Your task to perform on an android device: Search for hotels in Washington DC Image 0: 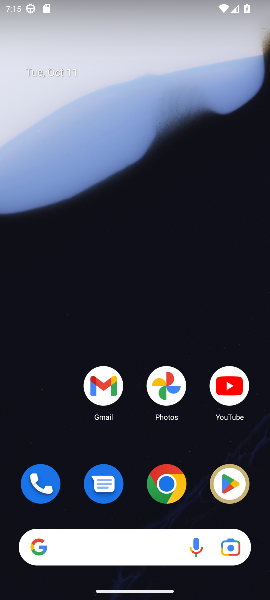
Step 0: click (165, 484)
Your task to perform on an android device: Search for hotels in Washington DC Image 1: 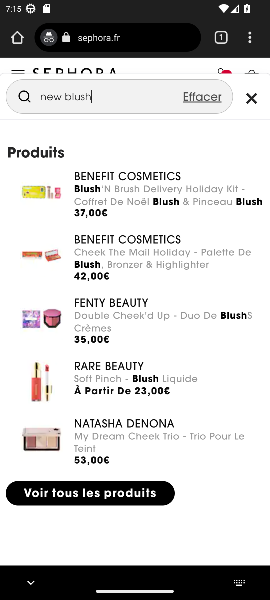
Step 1: click (139, 44)
Your task to perform on an android device: Search for hotels in Washington DC Image 2: 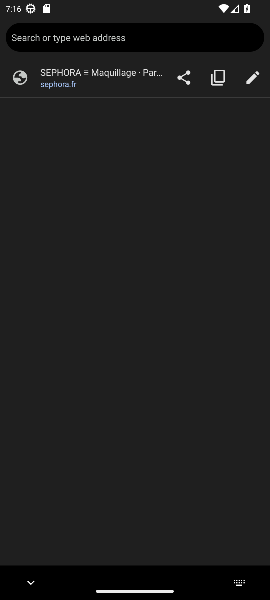
Step 2: type "hotels in Washington DC"
Your task to perform on an android device: Search for hotels in Washington DC Image 3: 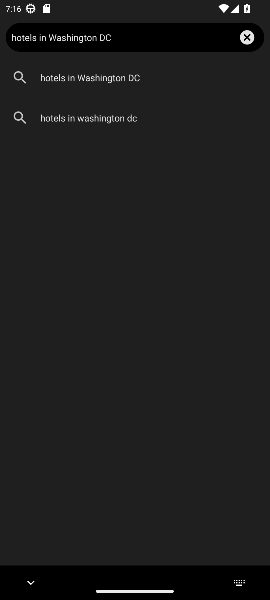
Step 3: click (130, 77)
Your task to perform on an android device: Search for hotels in Washington DC Image 4: 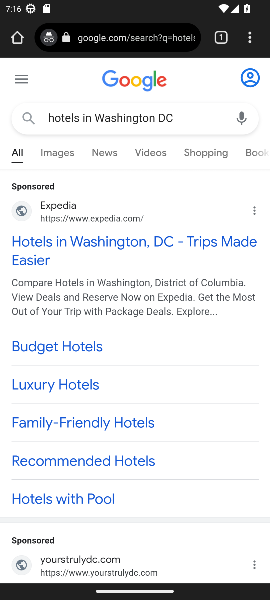
Step 4: drag from (103, 446) to (181, 279)
Your task to perform on an android device: Search for hotels in Washington DC Image 5: 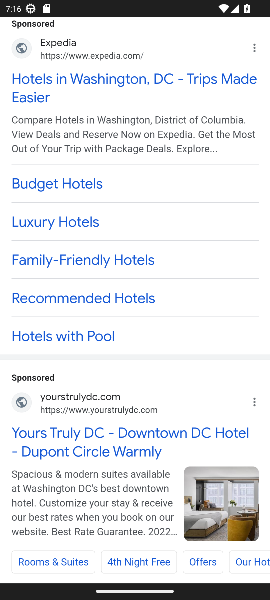
Step 5: drag from (126, 476) to (154, 266)
Your task to perform on an android device: Search for hotels in Washington DC Image 6: 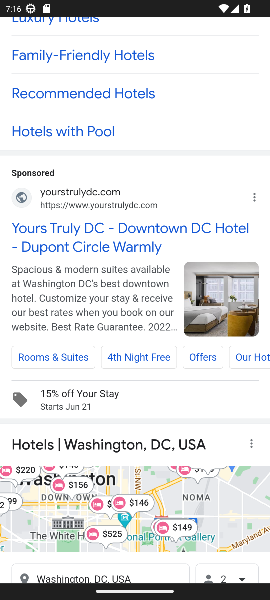
Step 6: drag from (107, 480) to (165, 249)
Your task to perform on an android device: Search for hotels in Washington DC Image 7: 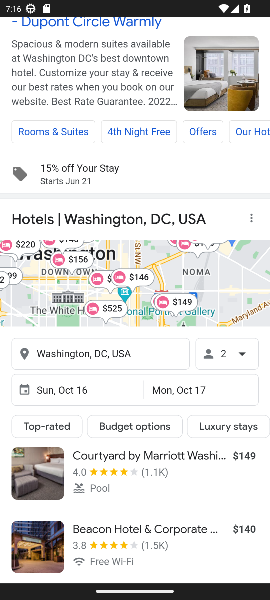
Step 7: drag from (131, 473) to (189, 265)
Your task to perform on an android device: Search for hotels in Washington DC Image 8: 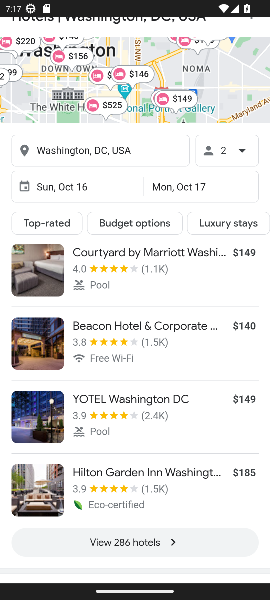
Step 8: click (134, 539)
Your task to perform on an android device: Search for hotels in Washington DC Image 9: 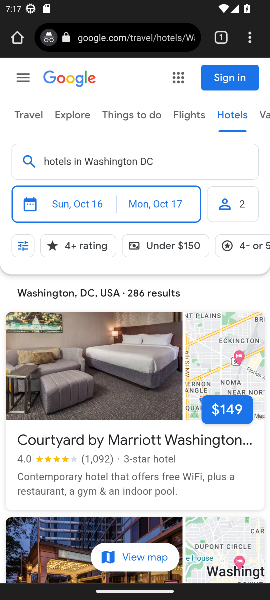
Step 9: task complete